Your task to perform on an android device: Go to eBay Image 0: 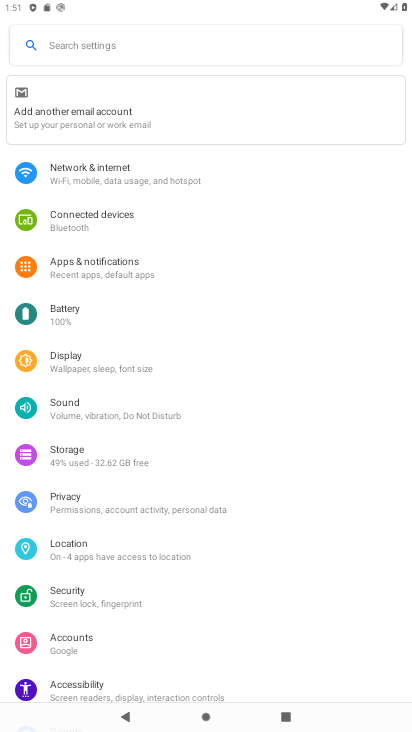
Step 0: press home button
Your task to perform on an android device: Go to eBay Image 1: 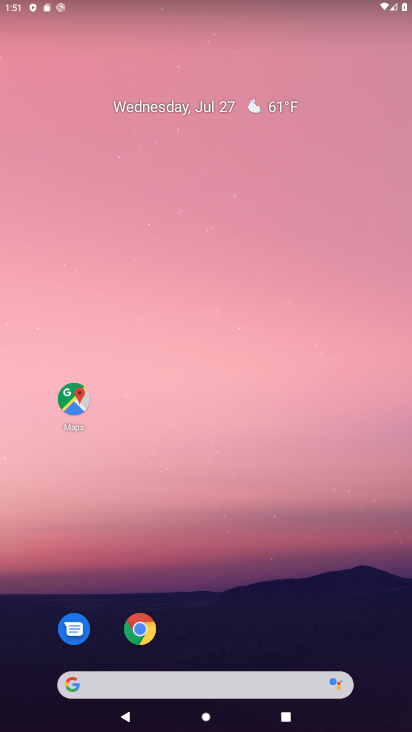
Step 1: click (143, 629)
Your task to perform on an android device: Go to eBay Image 2: 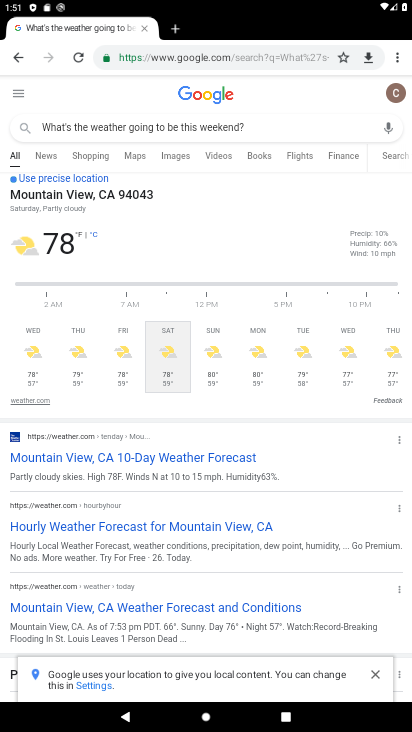
Step 2: click (316, 55)
Your task to perform on an android device: Go to eBay Image 3: 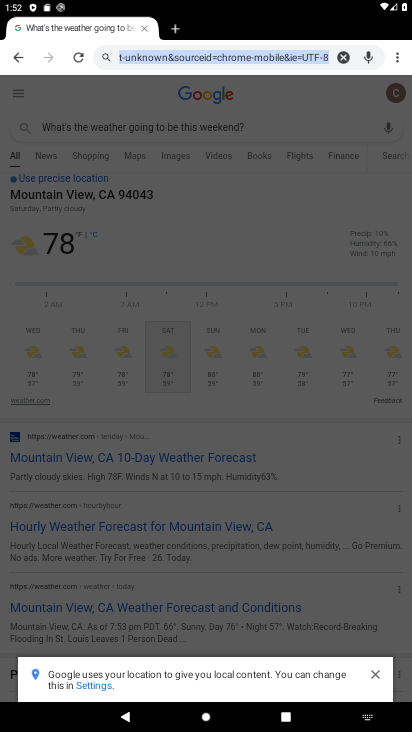
Step 3: type "eBay"
Your task to perform on an android device: Go to eBay Image 4: 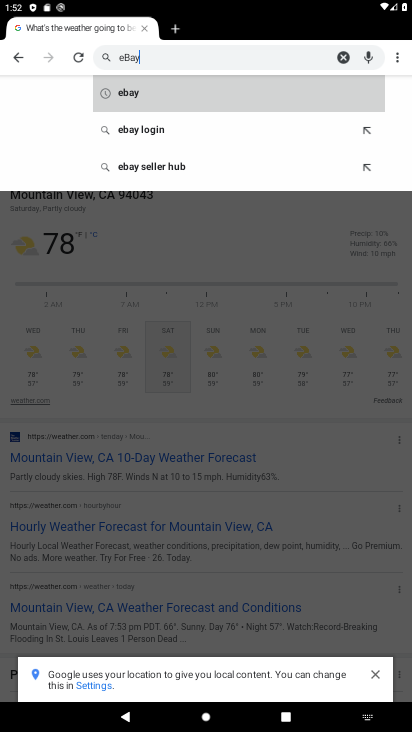
Step 4: click (152, 98)
Your task to perform on an android device: Go to eBay Image 5: 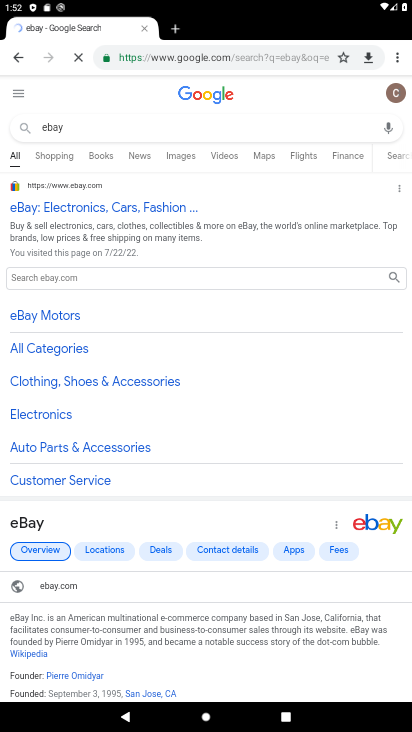
Step 5: click (161, 203)
Your task to perform on an android device: Go to eBay Image 6: 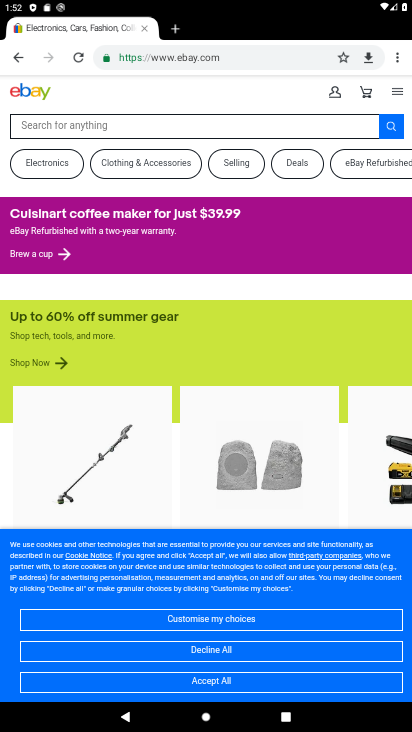
Step 6: task complete